Your task to perform on an android device: turn vacation reply on in the gmail app Image 0: 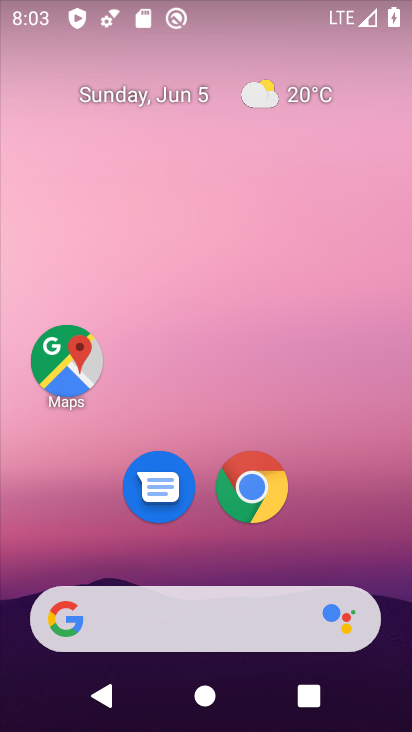
Step 0: drag from (195, 547) to (200, 70)
Your task to perform on an android device: turn vacation reply on in the gmail app Image 1: 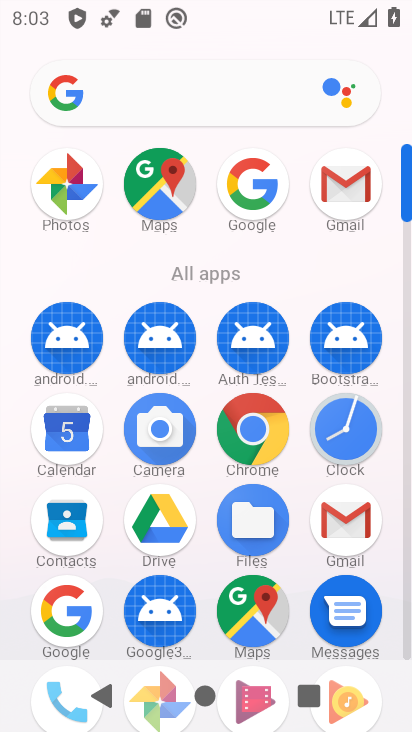
Step 1: click (331, 213)
Your task to perform on an android device: turn vacation reply on in the gmail app Image 2: 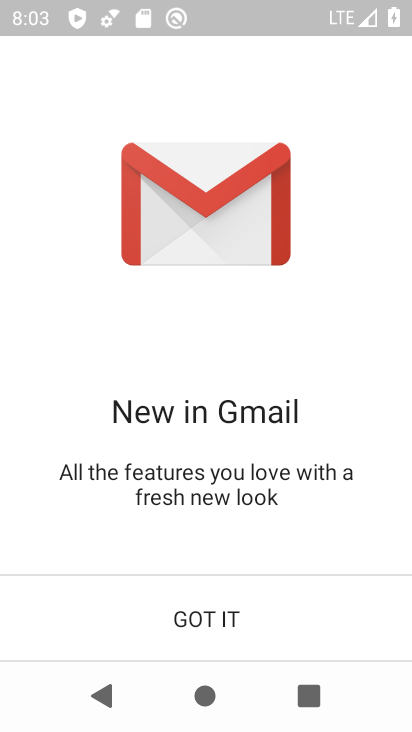
Step 2: click (236, 626)
Your task to perform on an android device: turn vacation reply on in the gmail app Image 3: 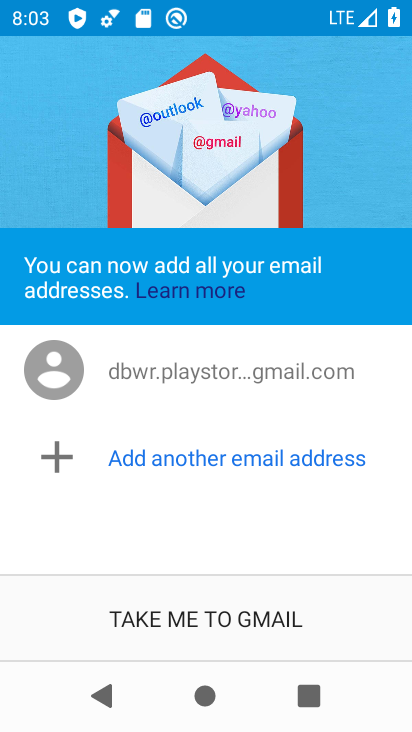
Step 3: click (236, 626)
Your task to perform on an android device: turn vacation reply on in the gmail app Image 4: 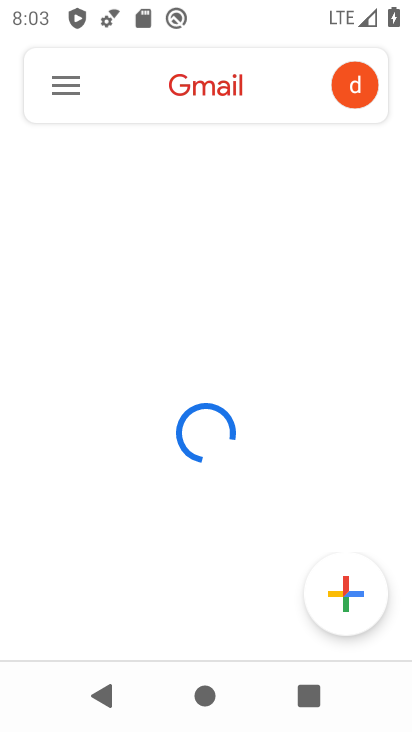
Step 4: click (66, 97)
Your task to perform on an android device: turn vacation reply on in the gmail app Image 5: 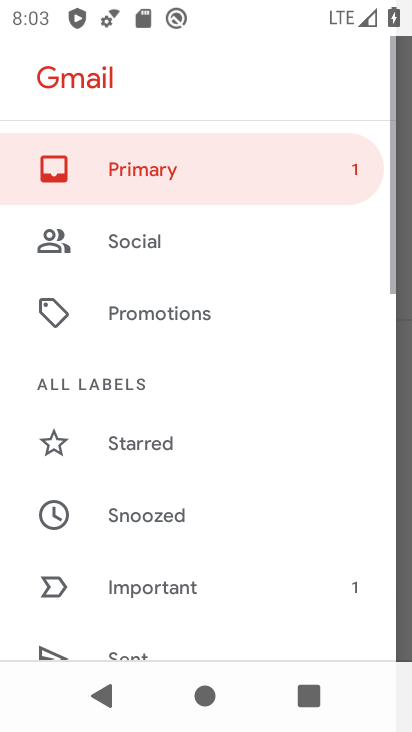
Step 5: drag from (172, 625) to (220, 235)
Your task to perform on an android device: turn vacation reply on in the gmail app Image 6: 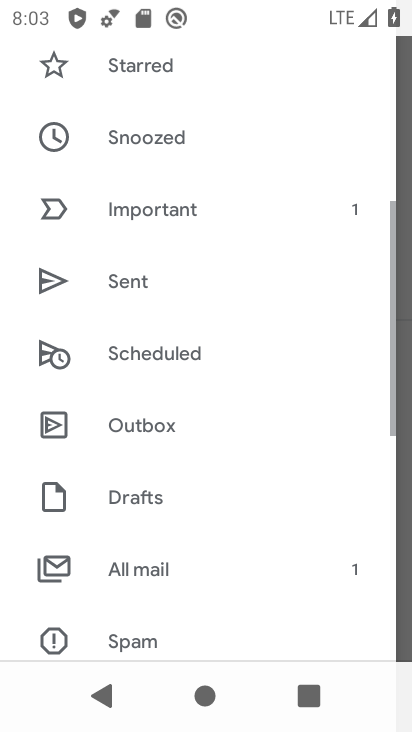
Step 6: drag from (249, 553) to (250, 223)
Your task to perform on an android device: turn vacation reply on in the gmail app Image 7: 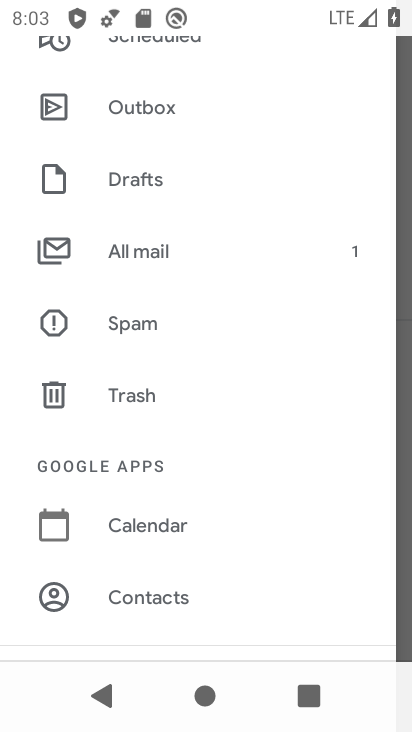
Step 7: drag from (169, 571) to (183, 324)
Your task to perform on an android device: turn vacation reply on in the gmail app Image 8: 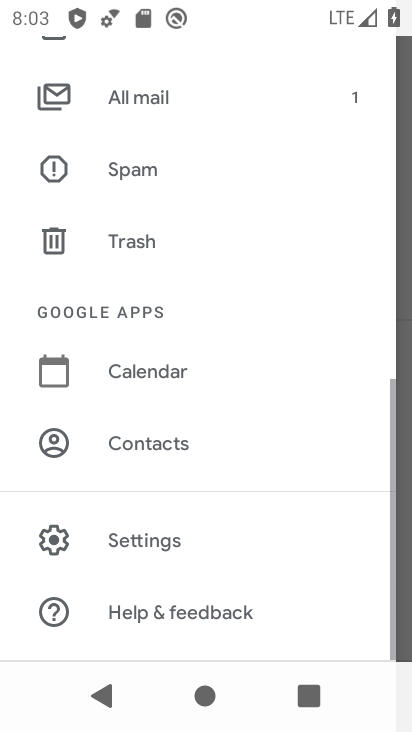
Step 8: click (159, 524)
Your task to perform on an android device: turn vacation reply on in the gmail app Image 9: 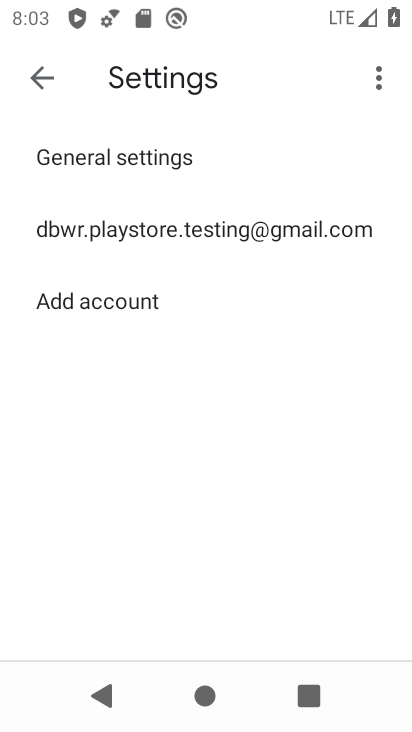
Step 9: click (208, 231)
Your task to perform on an android device: turn vacation reply on in the gmail app Image 10: 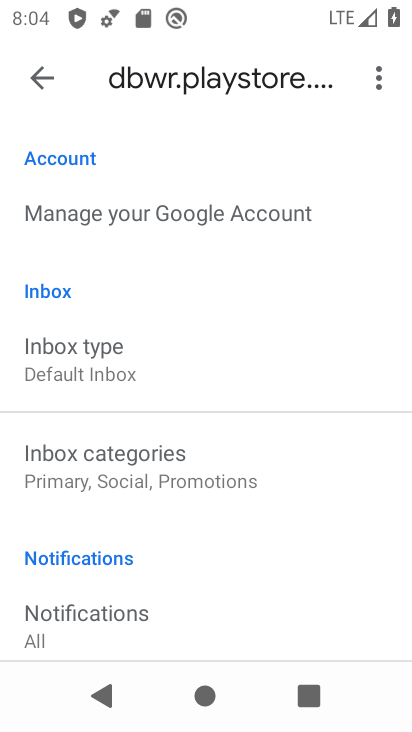
Step 10: drag from (178, 602) to (221, 326)
Your task to perform on an android device: turn vacation reply on in the gmail app Image 11: 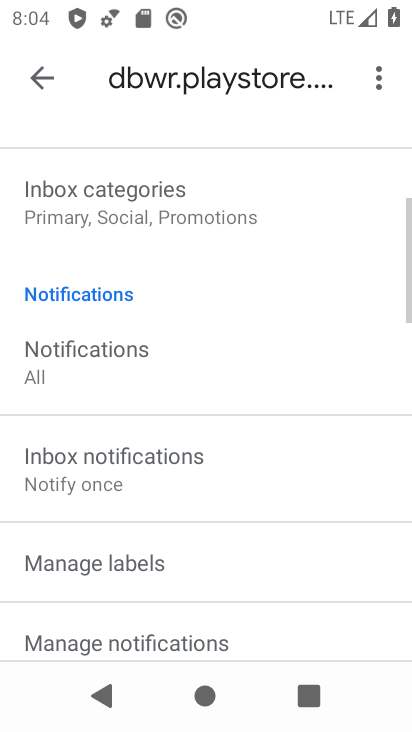
Step 11: drag from (234, 550) to (248, 303)
Your task to perform on an android device: turn vacation reply on in the gmail app Image 12: 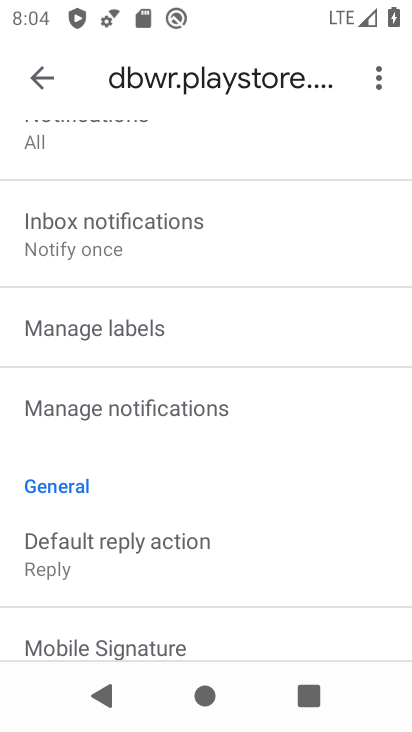
Step 12: drag from (159, 574) to (224, 295)
Your task to perform on an android device: turn vacation reply on in the gmail app Image 13: 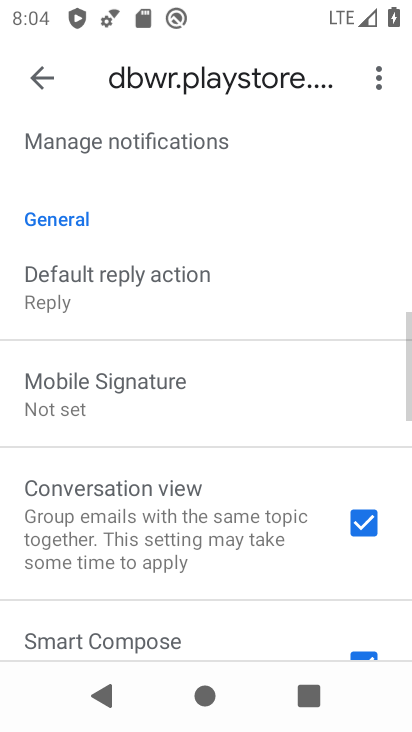
Step 13: drag from (195, 597) to (216, 329)
Your task to perform on an android device: turn vacation reply on in the gmail app Image 14: 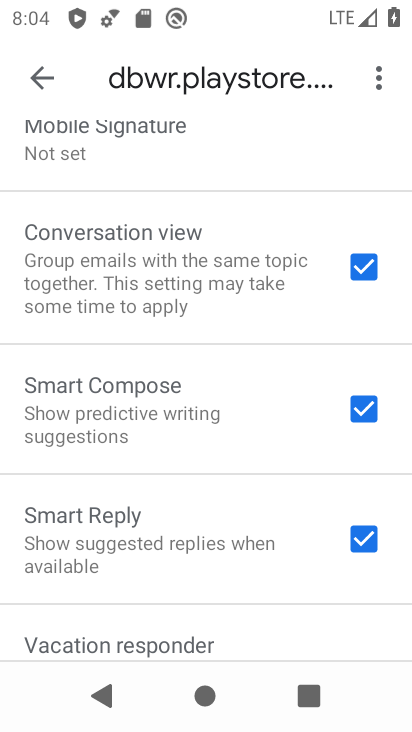
Step 14: drag from (220, 567) to (228, 397)
Your task to perform on an android device: turn vacation reply on in the gmail app Image 15: 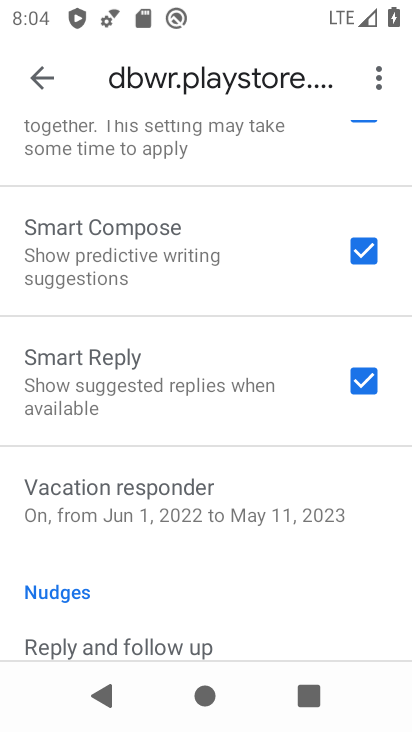
Step 15: click (219, 518)
Your task to perform on an android device: turn vacation reply on in the gmail app Image 16: 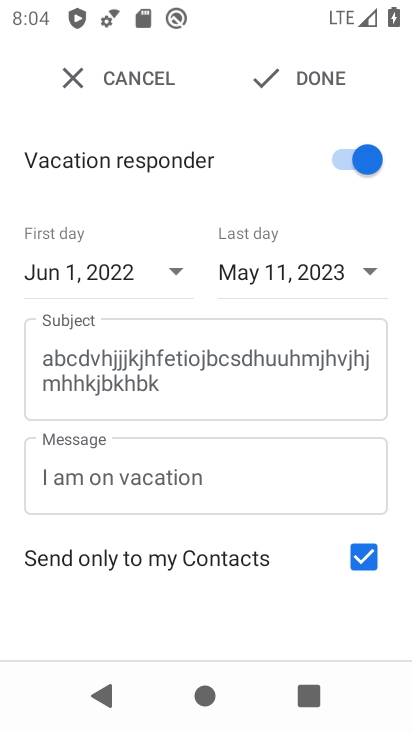
Step 16: task complete